Your task to perform on an android device: Show me popular games on the Play Store Image 0: 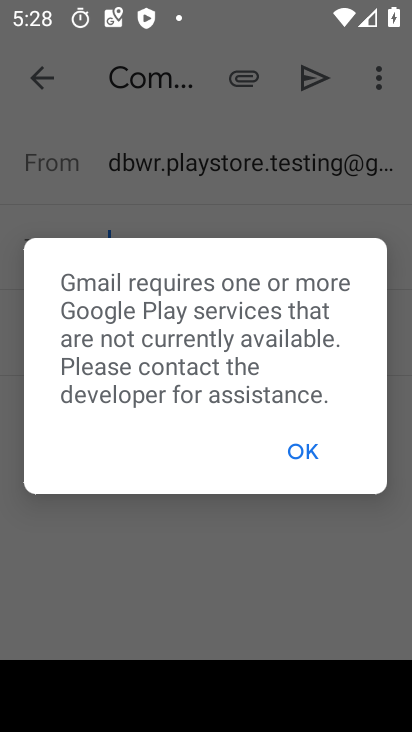
Step 0: click (296, 449)
Your task to perform on an android device: Show me popular games on the Play Store Image 1: 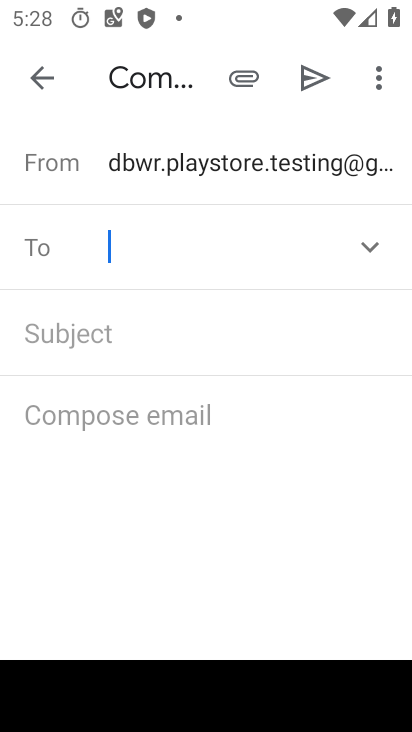
Step 1: press back button
Your task to perform on an android device: Show me popular games on the Play Store Image 2: 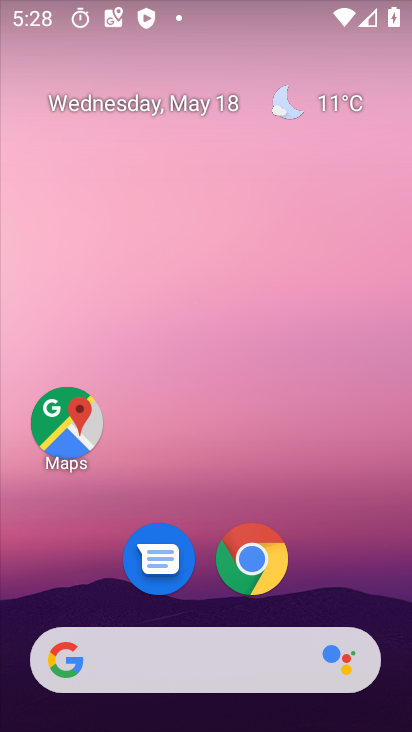
Step 2: drag from (259, 563) to (251, 7)
Your task to perform on an android device: Show me popular games on the Play Store Image 3: 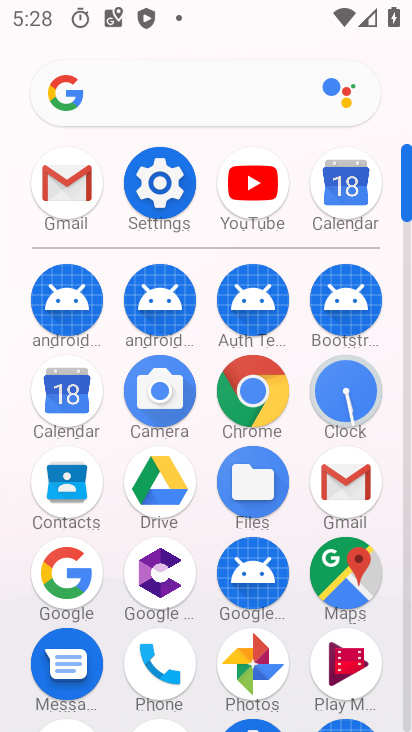
Step 3: drag from (197, 583) to (268, 98)
Your task to perform on an android device: Show me popular games on the Play Store Image 4: 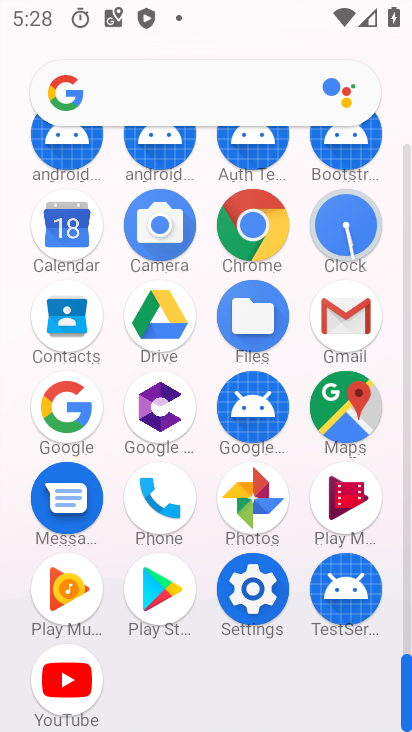
Step 4: click (156, 598)
Your task to perform on an android device: Show me popular games on the Play Store Image 5: 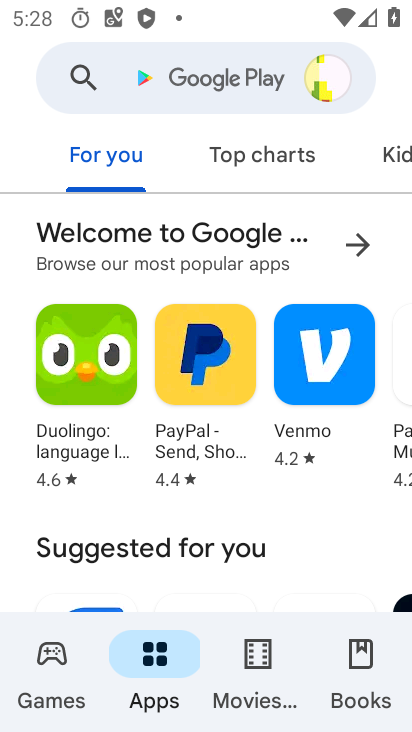
Step 5: click (65, 670)
Your task to perform on an android device: Show me popular games on the Play Store Image 6: 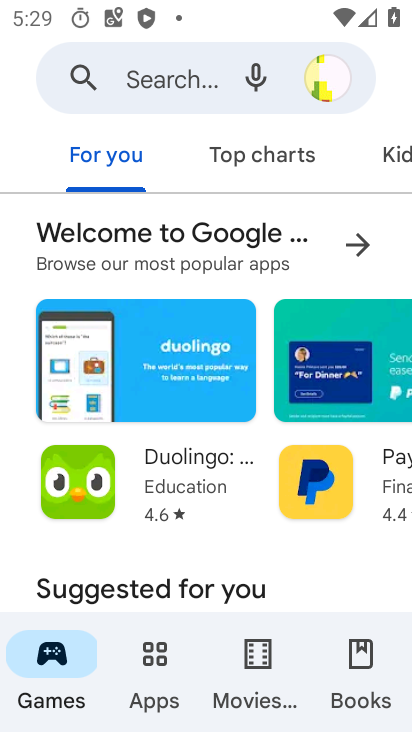
Step 6: drag from (241, 534) to (356, 113)
Your task to perform on an android device: Show me popular games on the Play Store Image 7: 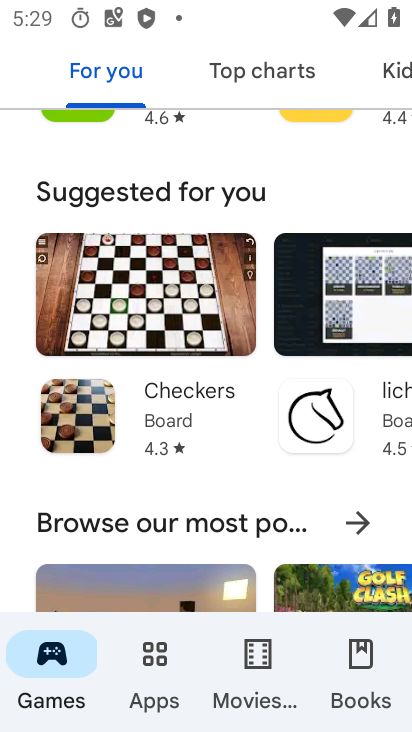
Step 7: drag from (237, 539) to (270, 287)
Your task to perform on an android device: Show me popular games on the Play Store Image 8: 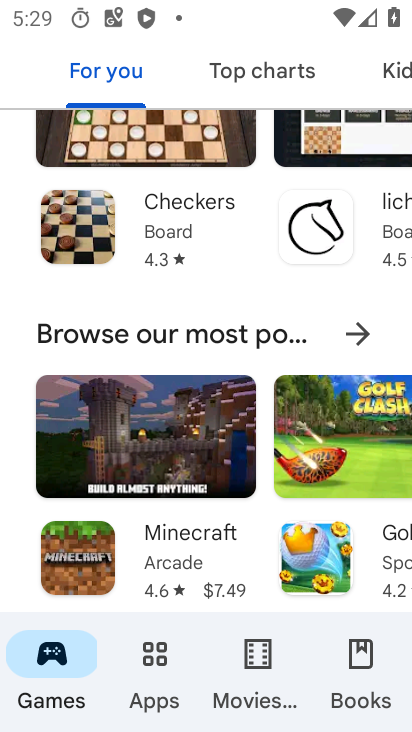
Step 8: click (362, 322)
Your task to perform on an android device: Show me popular games on the Play Store Image 9: 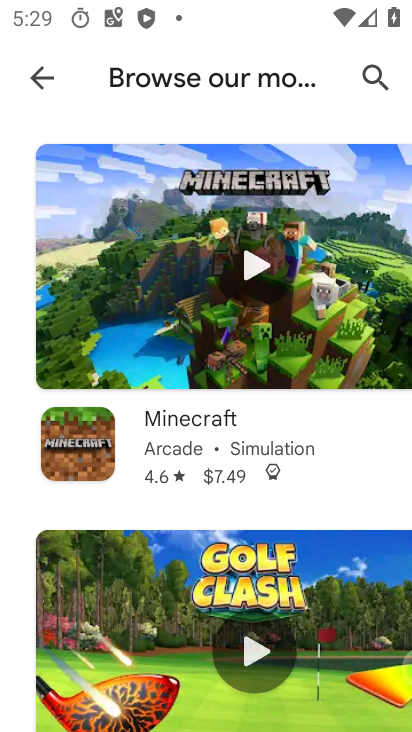
Step 9: task complete